Your task to perform on an android device: What's the weather today? Image 0: 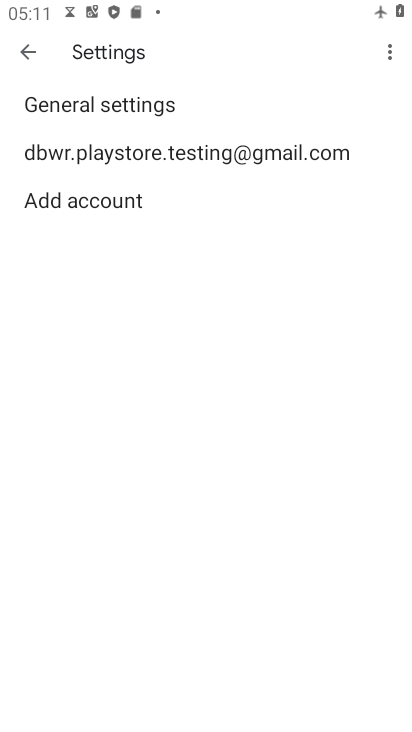
Step 0: press back button
Your task to perform on an android device: What's the weather today? Image 1: 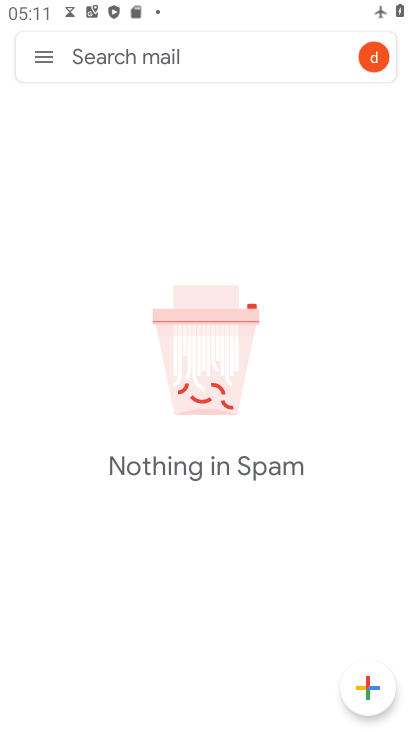
Step 1: press back button
Your task to perform on an android device: What's the weather today? Image 2: 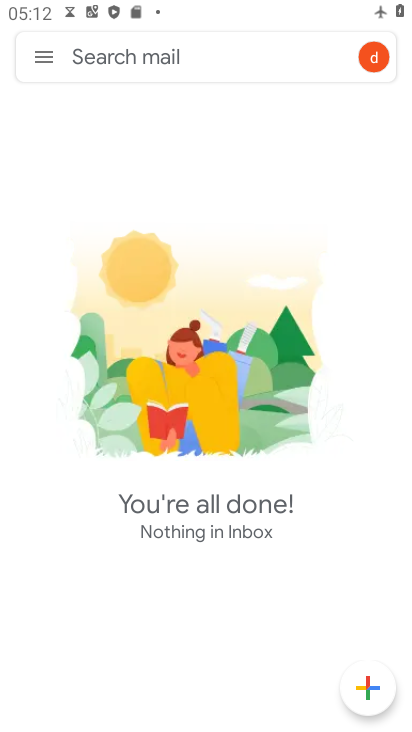
Step 2: press back button
Your task to perform on an android device: What's the weather today? Image 3: 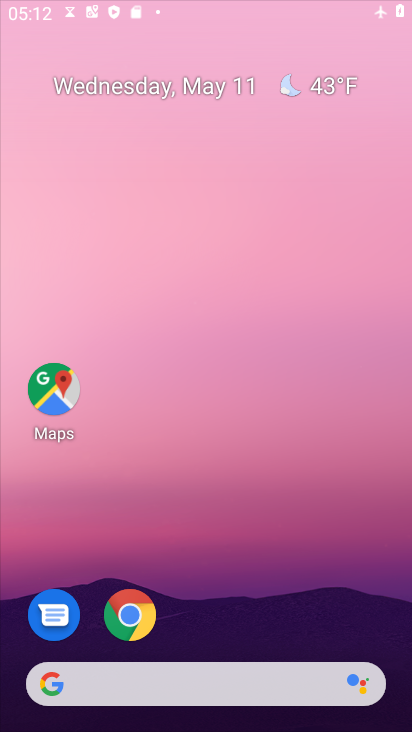
Step 3: press home button
Your task to perform on an android device: What's the weather today? Image 4: 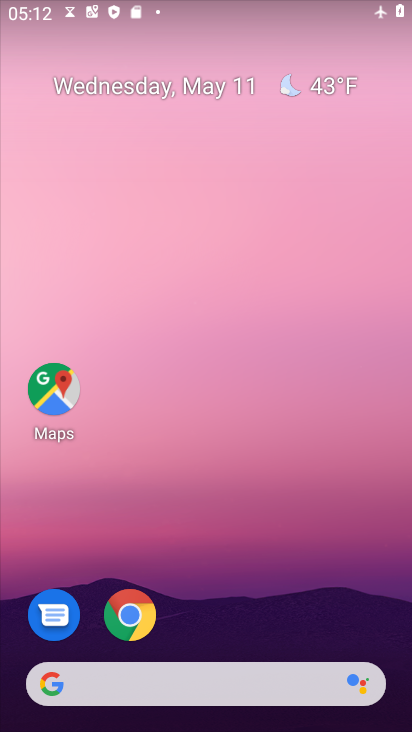
Step 4: drag from (223, 604) to (238, 93)
Your task to perform on an android device: What's the weather today? Image 5: 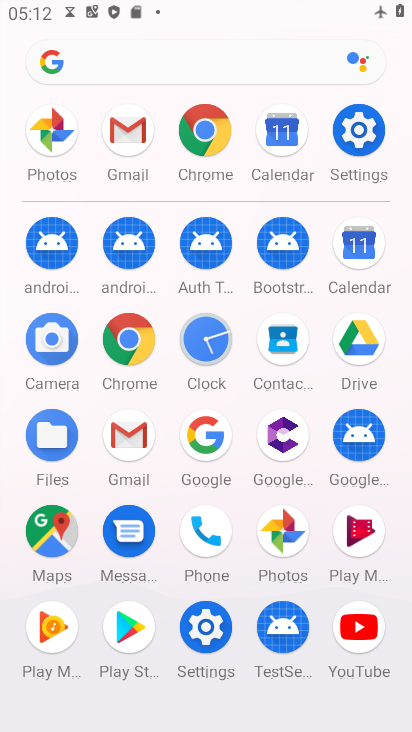
Step 5: click (124, 333)
Your task to perform on an android device: What's the weather today? Image 6: 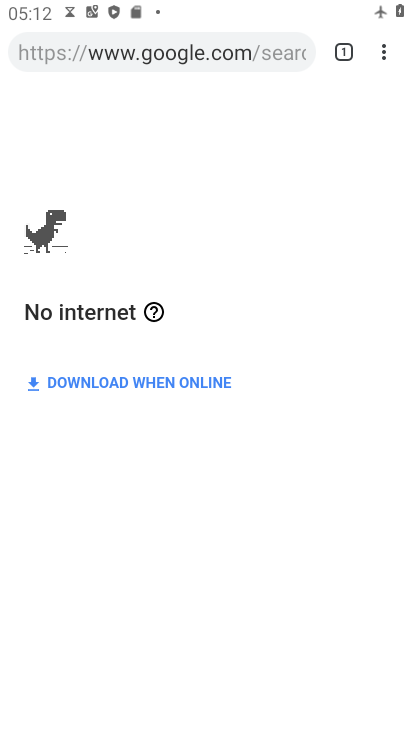
Step 6: click (178, 43)
Your task to perform on an android device: What's the weather today? Image 7: 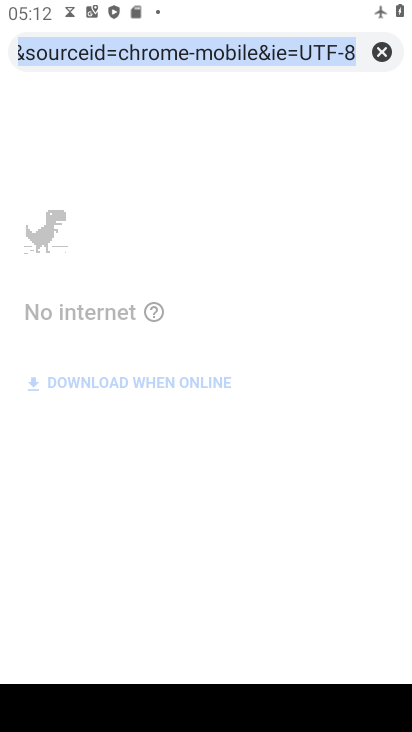
Step 7: click (395, 51)
Your task to perform on an android device: What's the weather today? Image 8: 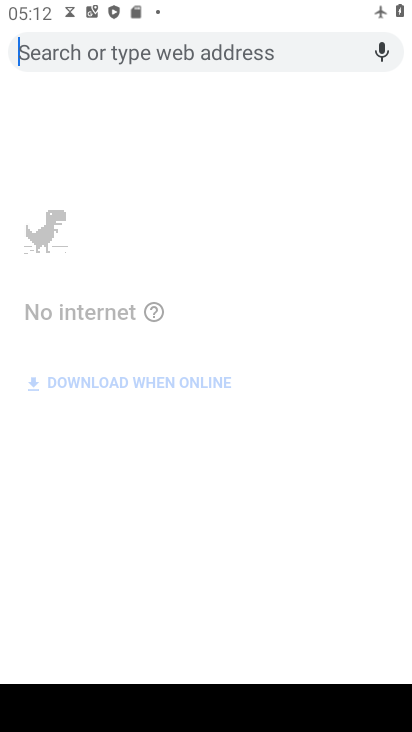
Step 8: type "What's the weather today?"
Your task to perform on an android device: What's the weather today? Image 9: 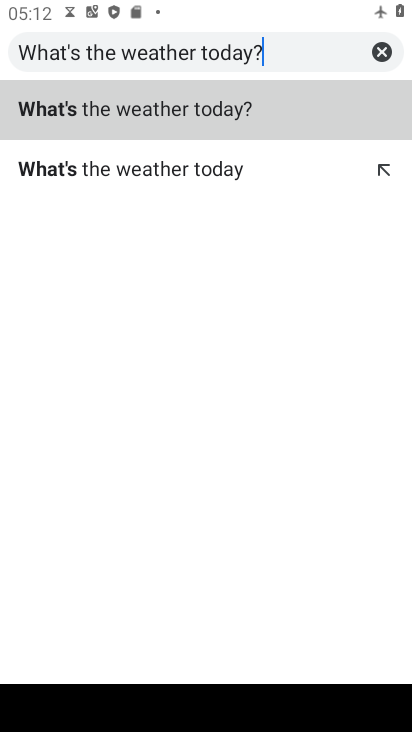
Step 9: type ""
Your task to perform on an android device: What's the weather today? Image 10: 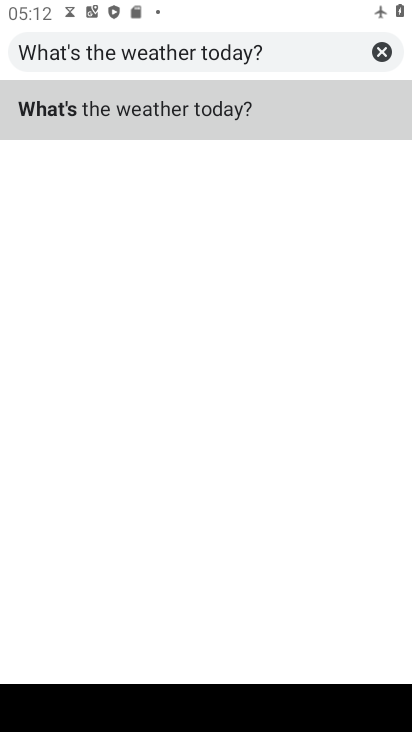
Step 10: click (174, 108)
Your task to perform on an android device: What's the weather today? Image 11: 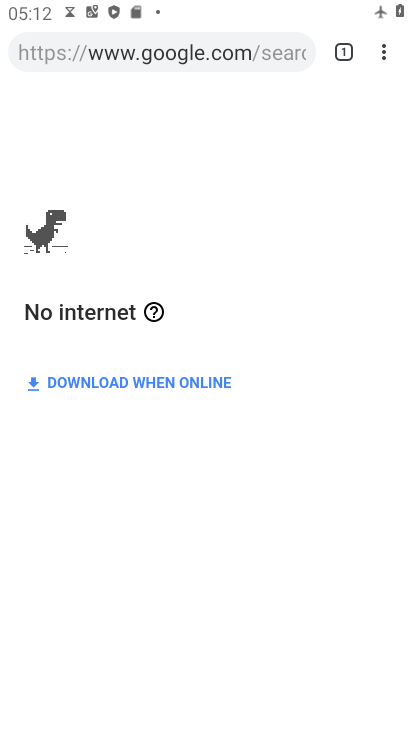
Step 11: task complete